Your task to perform on an android device: Go to ESPN.com Image 0: 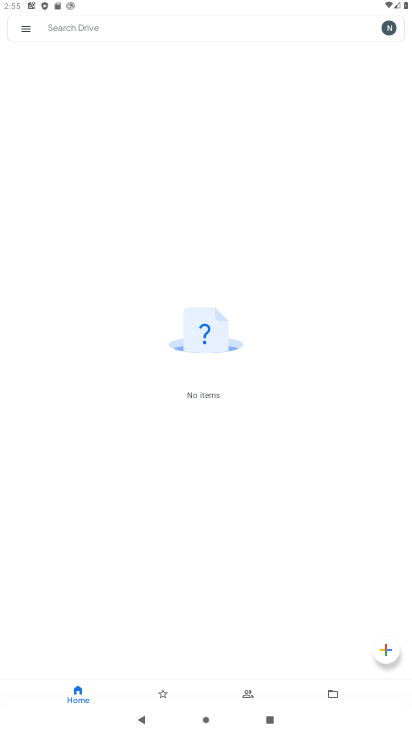
Step 0: task complete